Your task to perform on an android device: Open calendar and show me the first week of next month Image 0: 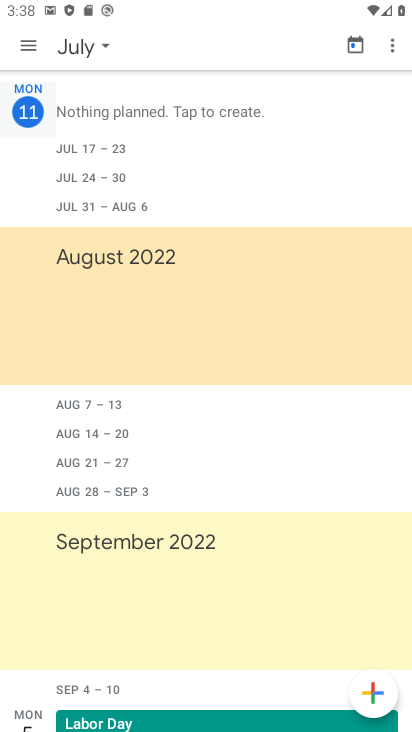
Step 0: click (121, 431)
Your task to perform on an android device: Open calendar and show me the first week of next month Image 1: 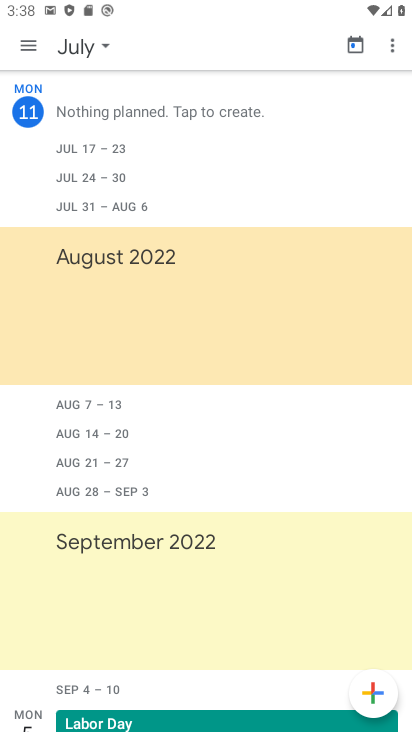
Step 1: click (121, 431)
Your task to perform on an android device: Open calendar and show me the first week of next month Image 2: 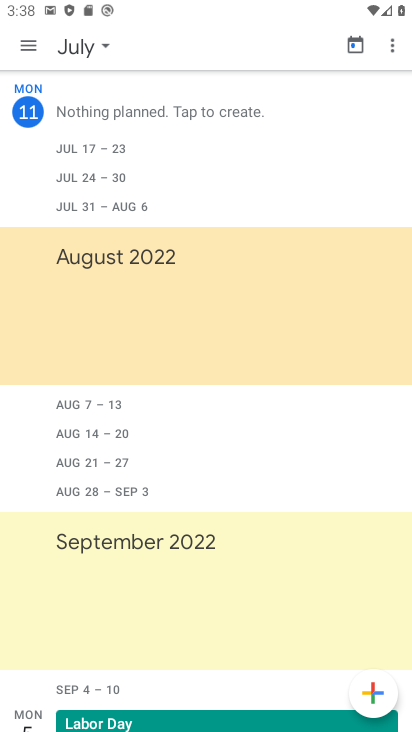
Step 2: click (122, 432)
Your task to perform on an android device: Open calendar and show me the first week of next month Image 3: 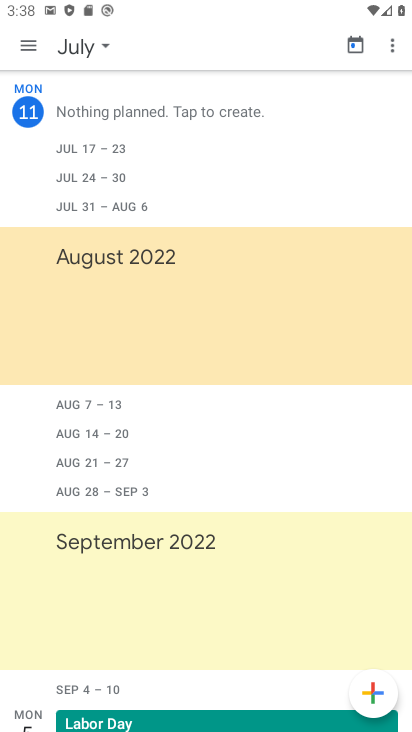
Step 3: click (121, 433)
Your task to perform on an android device: Open calendar and show me the first week of next month Image 4: 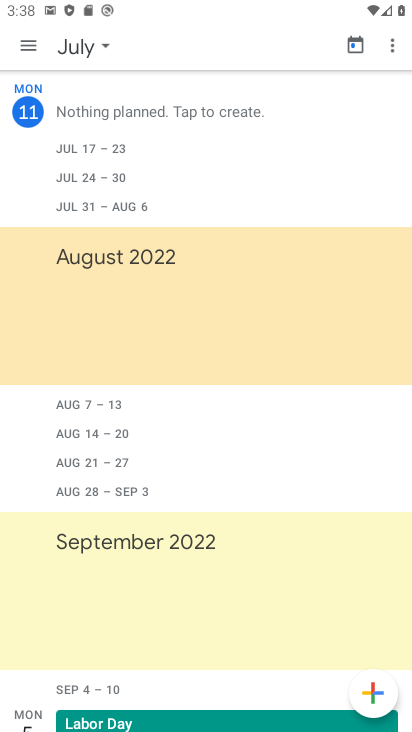
Step 4: click (118, 436)
Your task to perform on an android device: Open calendar and show me the first week of next month Image 5: 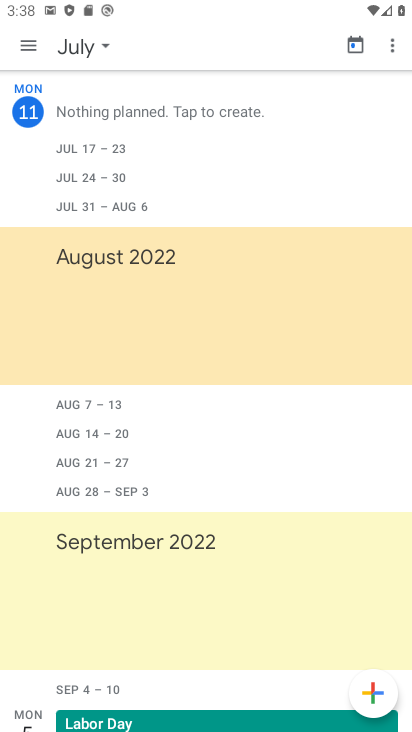
Step 5: click (120, 436)
Your task to perform on an android device: Open calendar and show me the first week of next month Image 6: 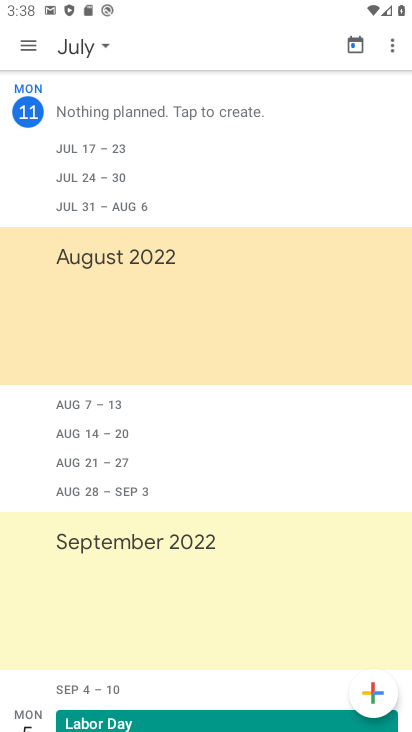
Step 6: click (124, 427)
Your task to perform on an android device: Open calendar and show me the first week of next month Image 7: 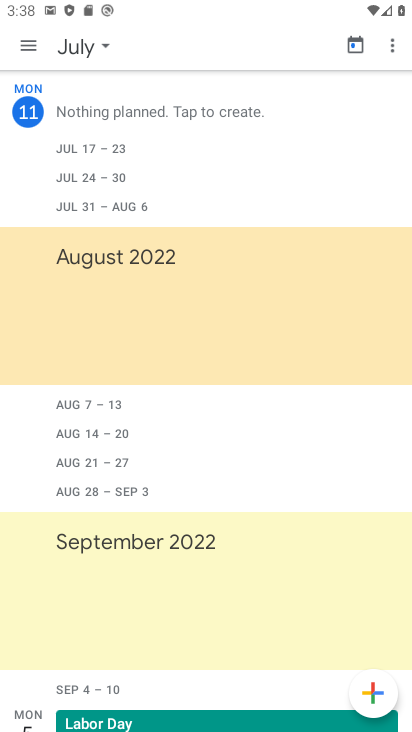
Step 7: click (124, 427)
Your task to perform on an android device: Open calendar and show me the first week of next month Image 8: 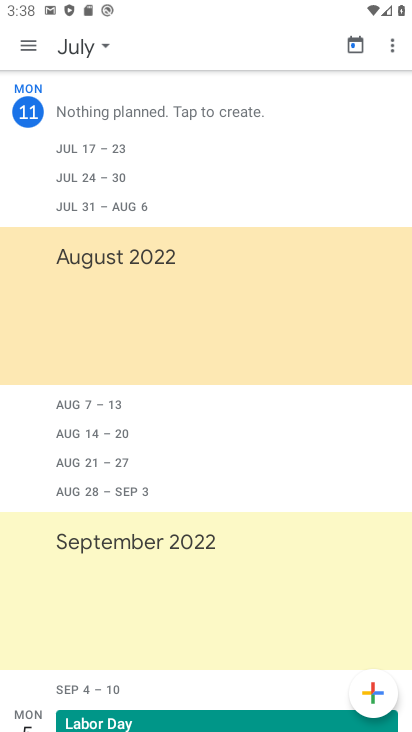
Step 8: click (125, 429)
Your task to perform on an android device: Open calendar and show me the first week of next month Image 9: 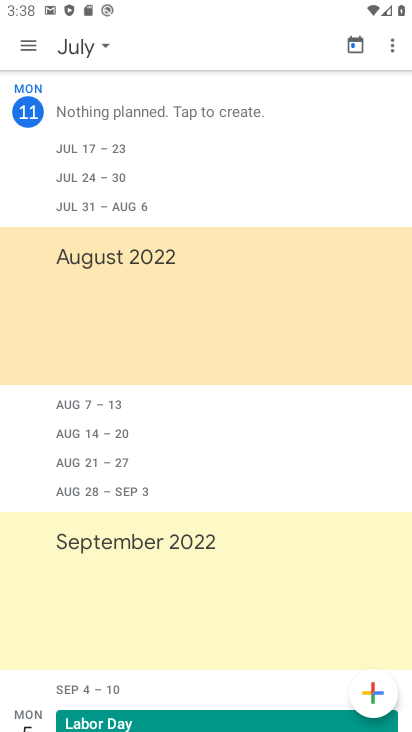
Step 9: click (125, 430)
Your task to perform on an android device: Open calendar and show me the first week of next month Image 10: 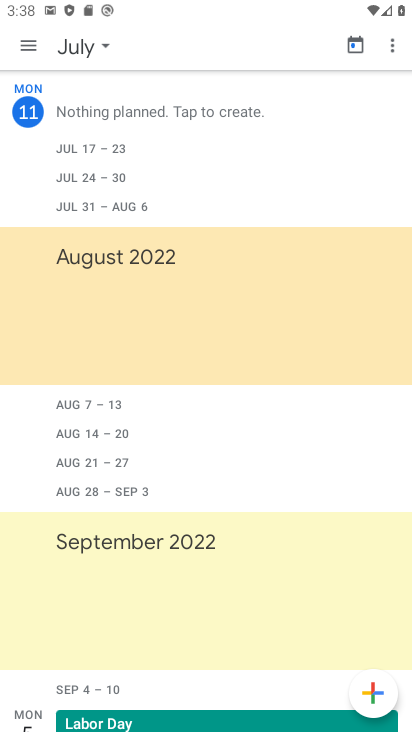
Step 10: click (108, 402)
Your task to perform on an android device: Open calendar and show me the first week of next month Image 11: 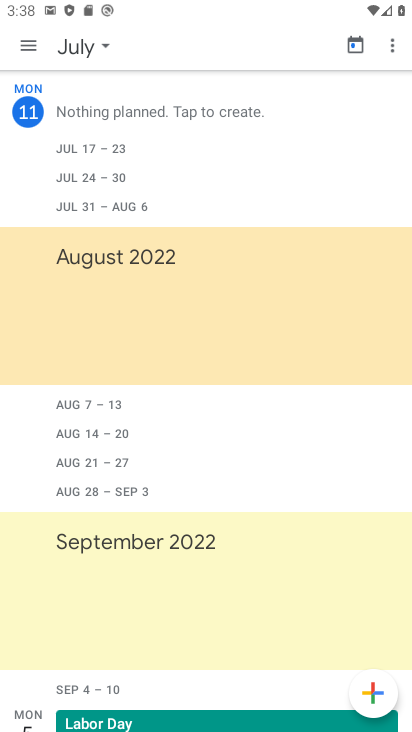
Step 11: click (112, 406)
Your task to perform on an android device: Open calendar and show me the first week of next month Image 12: 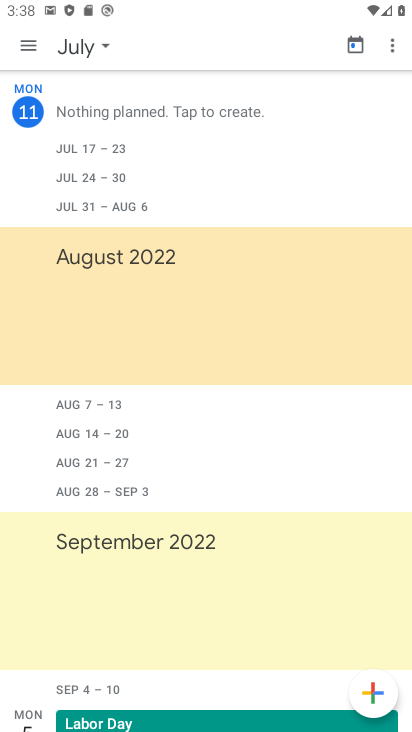
Step 12: click (114, 408)
Your task to perform on an android device: Open calendar and show me the first week of next month Image 13: 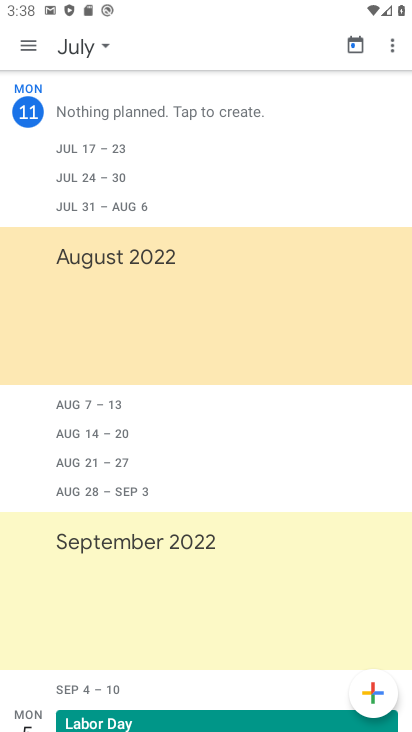
Step 13: click (115, 408)
Your task to perform on an android device: Open calendar and show me the first week of next month Image 14: 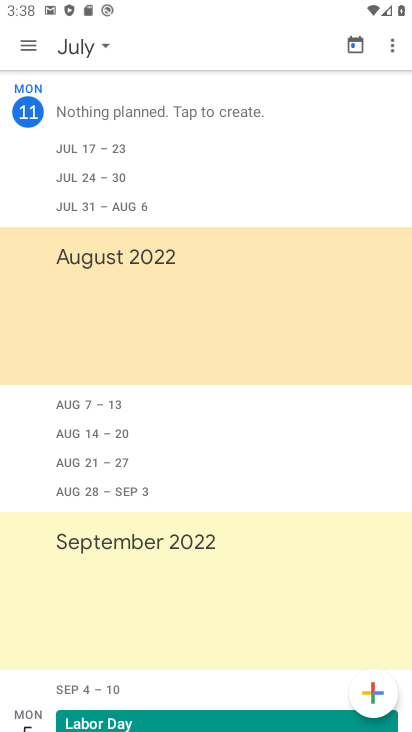
Step 14: click (114, 406)
Your task to perform on an android device: Open calendar and show me the first week of next month Image 15: 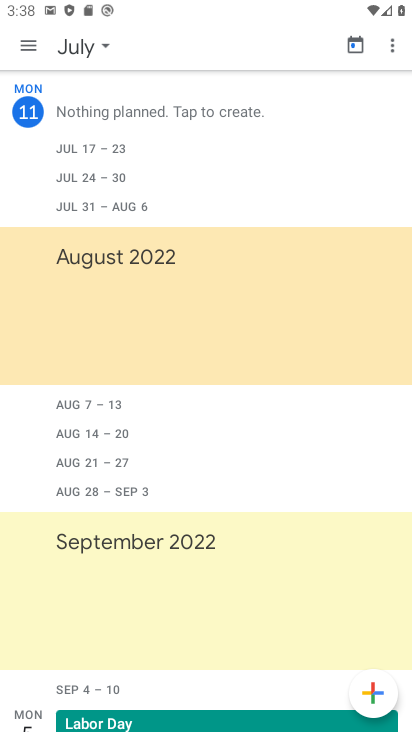
Step 15: click (115, 407)
Your task to perform on an android device: Open calendar and show me the first week of next month Image 16: 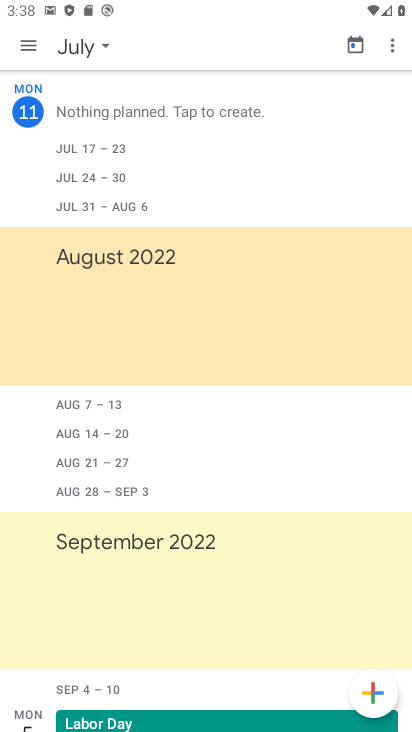
Step 16: click (114, 408)
Your task to perform on an android device: Open calendar and show me the first week of next month Image 17: 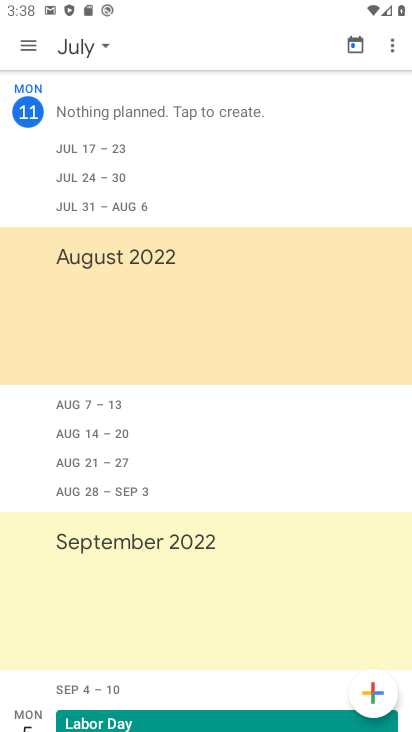
Step 17: click (112, 408)
Your task to perform on an android device: Open calendar and show me the first week of next month Image 18: 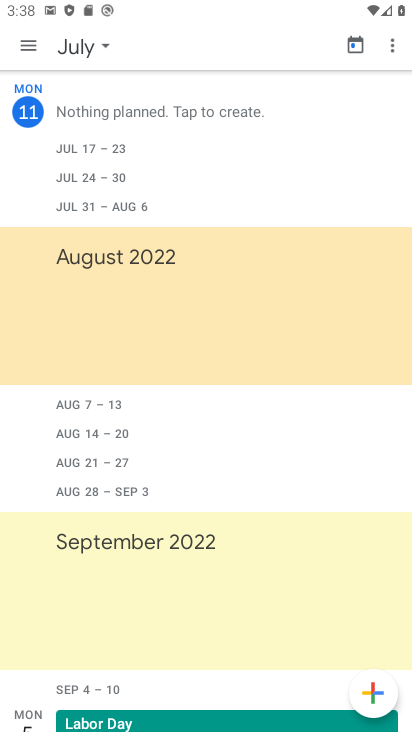
Step 18: click (112, 408)
Your task to perform on an android device: Open calendar and show me the first week of next month Image 19: 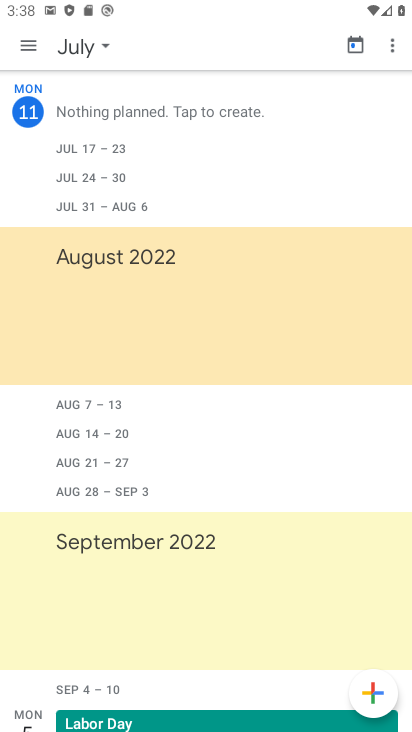
Step 19: click (113, 408)
Your task to perform on an android device: Open calendar and show me the first week of next month Image 20: 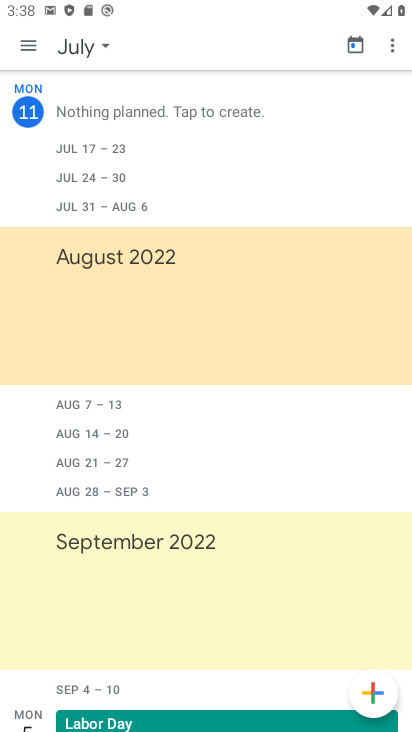
Step 20: click (117, 406)
Your task to perform on an android device: Open calendar and show me the first week of next month Image 21: 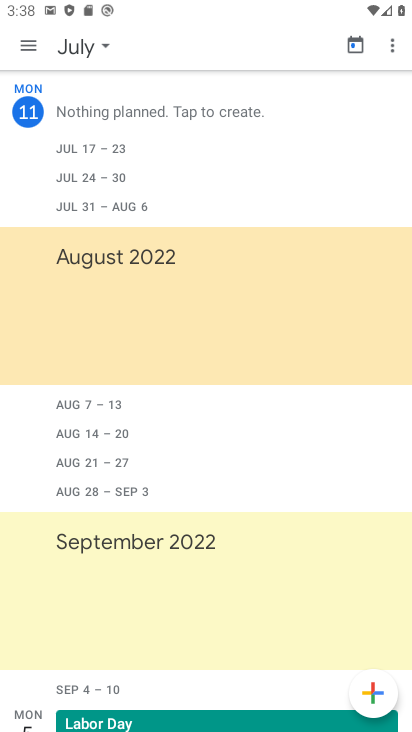
Step 21: click (117, 406)
Your task to perform on an android device: Open calendar and show me the first week of next month Image 22: 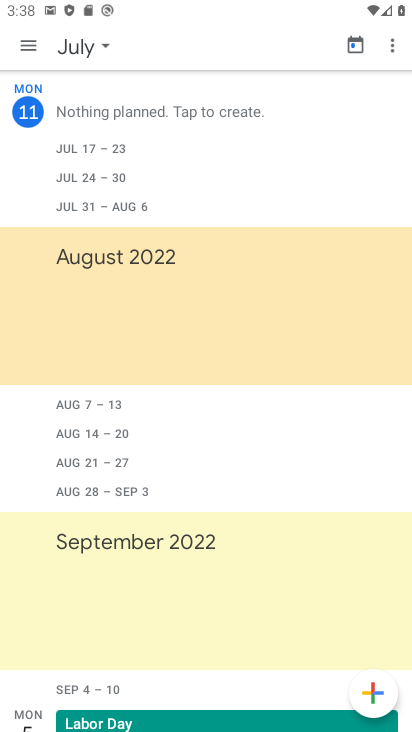
Step 22: click (117, 406)
Your task to perform on an android device: Open calendar and show me the first week of next month Image 23: 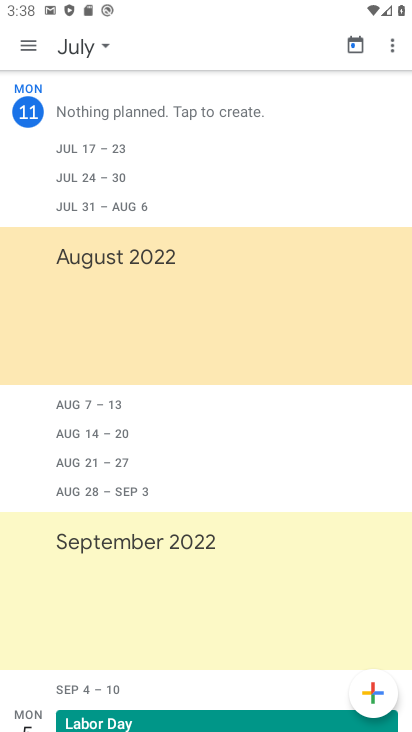
Step 23: click (114, 398)
Your task to perform on an android device: Open calendar and show me the first week of next month Image 24: 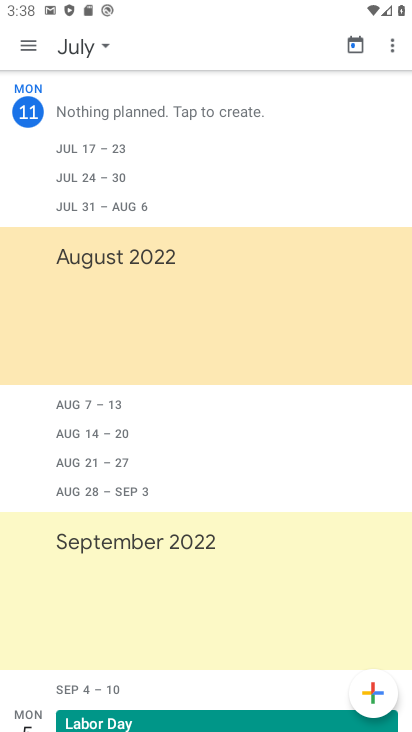
Step 24: click (114, 398)
Your task to perform on an android device: Open calendar and show me the first week of next month Image 25: 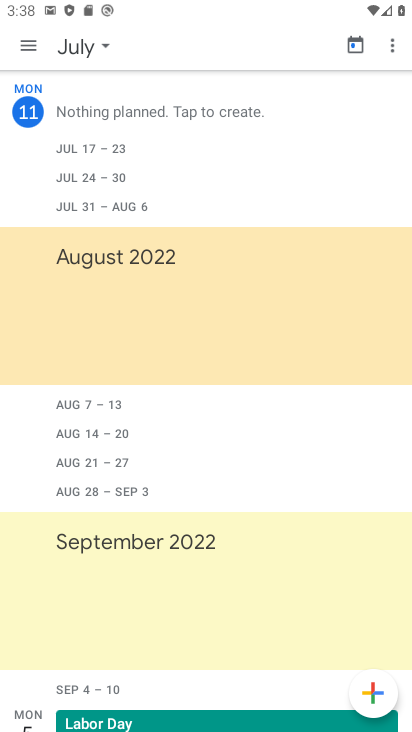
Step 25: click (113, 397)
Your task to perform on an android device: Open calendar and show me the first week of next month Image 26: 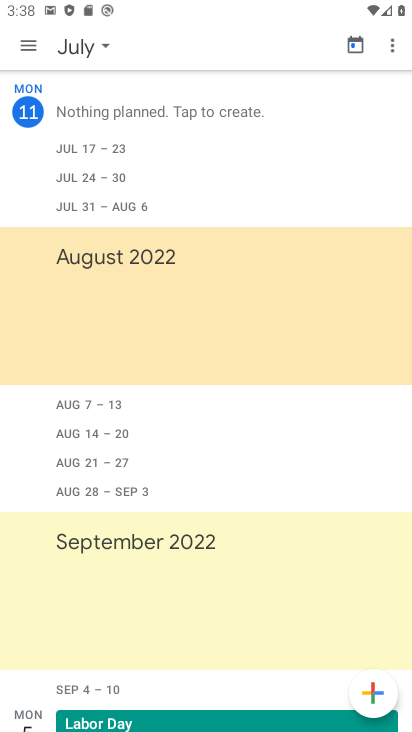
Step 26: click (94, 402)
Your task to perform on an android device: Open calendar and show me the first week of next month Image 27: 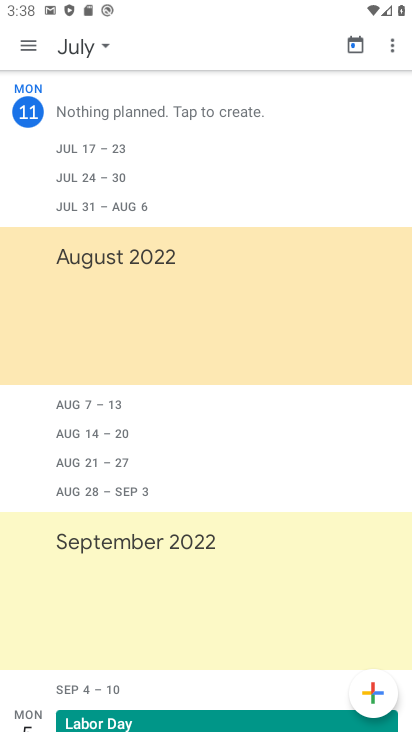
Step 27: click (89, 402)
Your task to perform on an android device: Open calendar and show me the first week of next month Image 28: 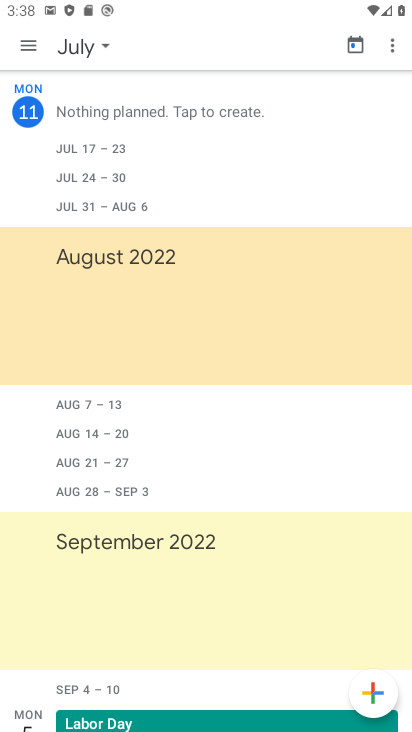
Step 28: click (89, 402)
Your task to perform on an android device: Open calendar and show me the first week of next month Image 29: 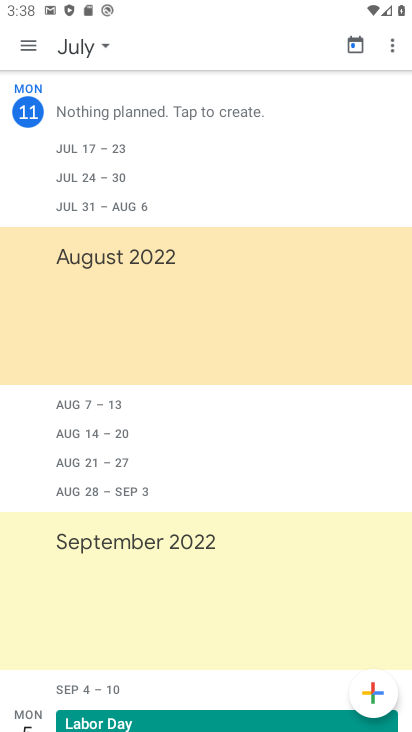
Step 29: click (90, 401)
Your task to perform on an android device: Open calendar and show me the first week of next month Image 30: 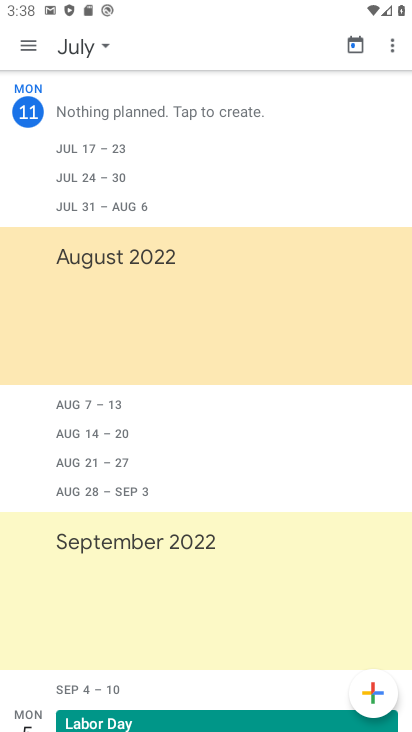
Step 30: click (92, 399)
Your task to perform on an android device: Open calendar and show me the first week of next month Image 31: 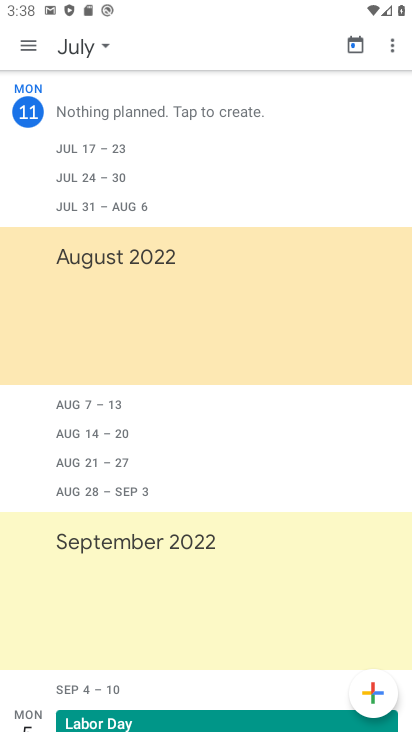
Step 31: click (92, 399)
Your task to perform on an android device: Open calendar and show me the first week of next month Image 32: 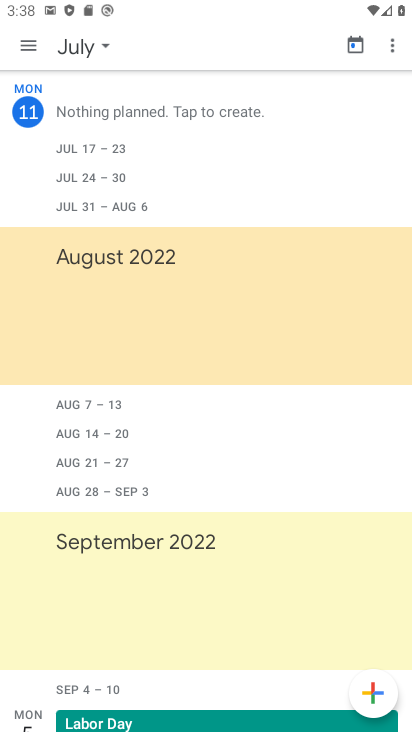
Step 32: click (92, 399)
Your task to perform on an android device: Open calendar and show me the first week of next month Image 33: 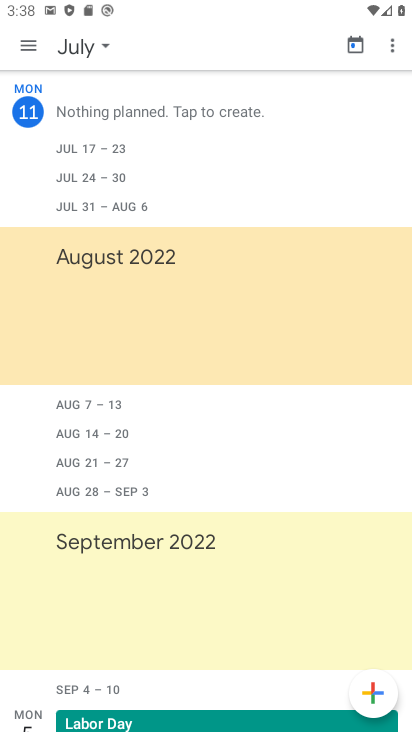
Step 33: click (92, 399)
Your task to perform on an android device: Open calendar and show me the first week of next month Image 34: 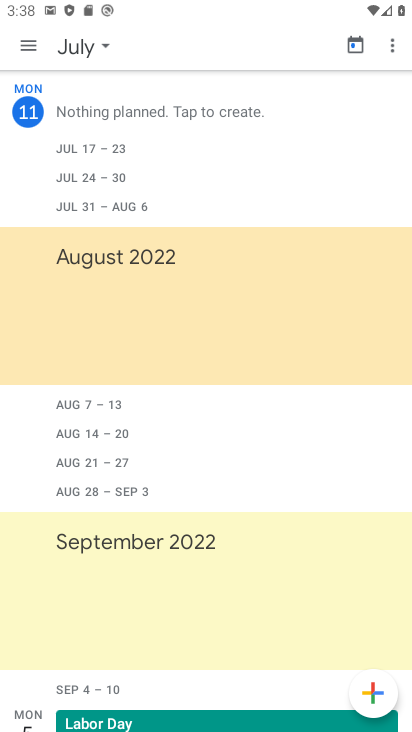
Step 34: click (93, 398)
Your task to perform on an android device: Open calendar and show me the first week of next month Image 35: 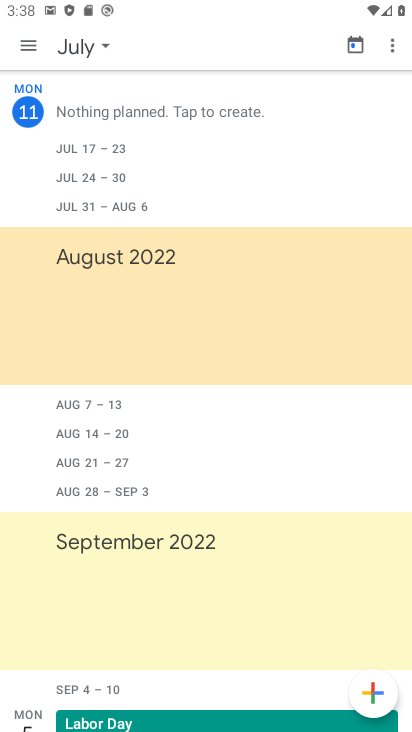
Step 35: click (97, 398)
Your task to perform on an android device: Open calendar and show me the first week of next month Image 36: 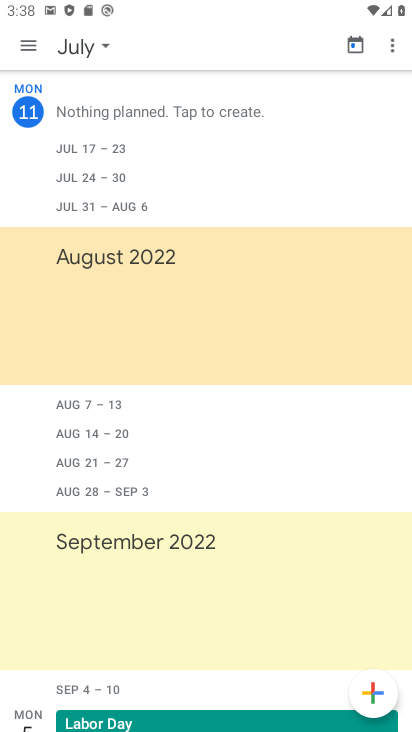
Step 36: click (98, 399)
Your task to perform on an android device: Open calendar and show me the first week of next month Image 37: 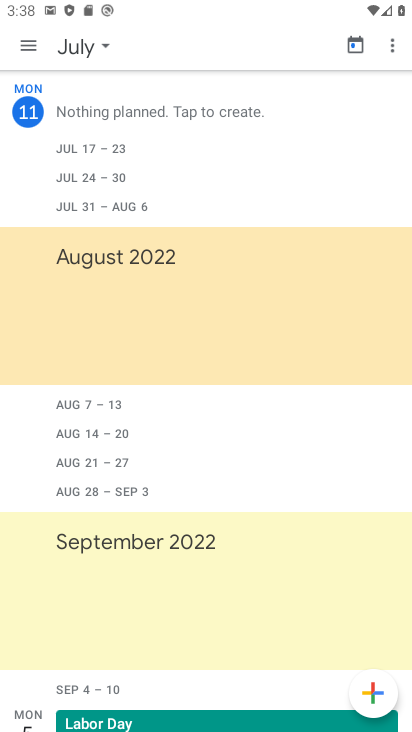
Step 37: task complete